Your task to perform on an android device: Open Amazon Image 0: 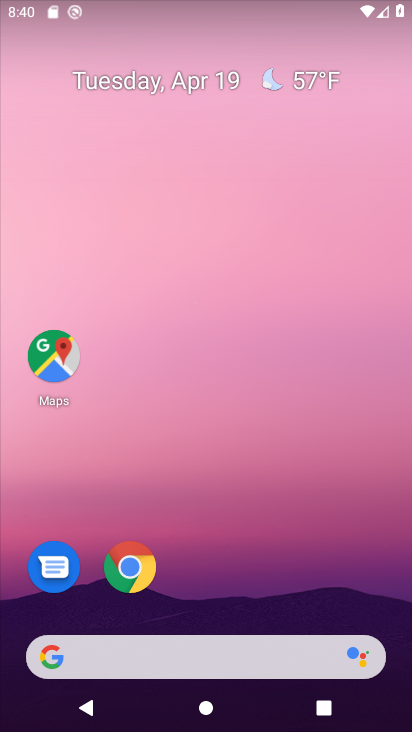
Step 0: click (137, 578)
Your task to perform on an android device: Open Amazon Image 1: 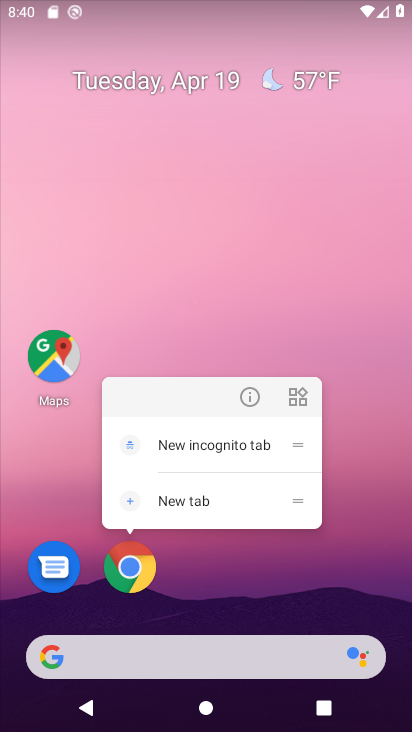
Step 1: click (235, 509)
Your task to perform on an android device: Open Amazon Image 2: 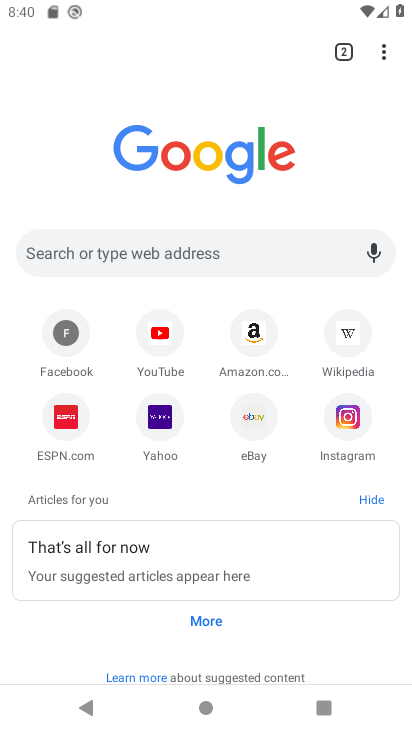
Step 2: click (255, 332)
Your task to perform on an android device: Open Amazon Image 3: 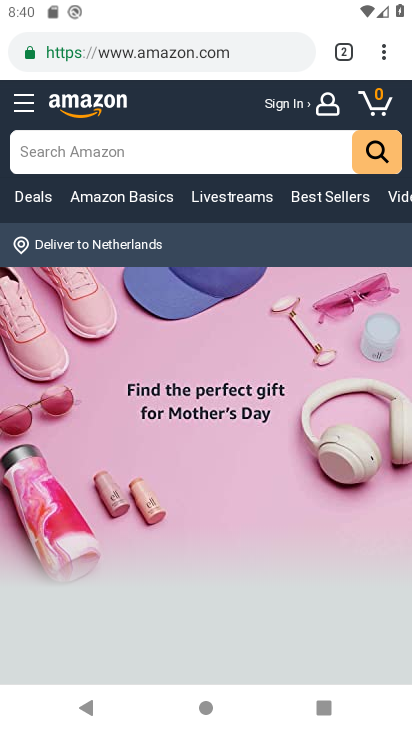
Step 3: task complete